Your task to perform on an android device: Go to wifi settings Image 0: 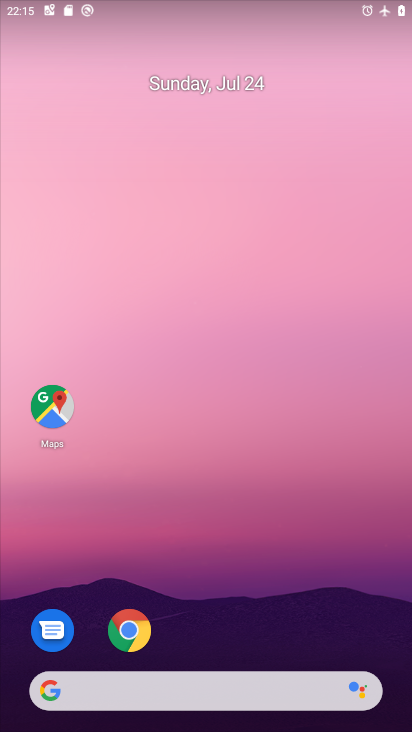
Step 0: drag from (283, 641) to (318, 131)
Your task to perform on an android device: Go to wifi settings Image 1: 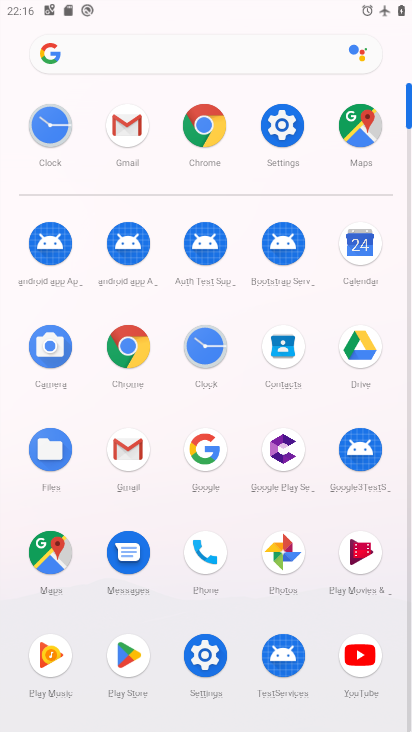
Step 1: click (291, 130)
Your task to perform on an android device: Go to wifi settings Image 2: 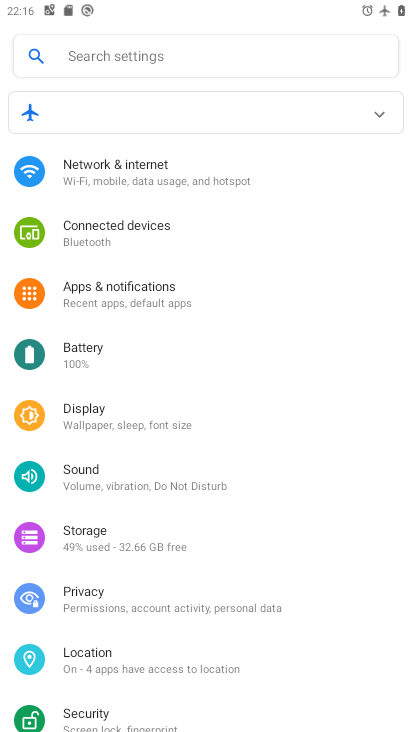
Step 2: click (94, 163)
Your task to perform on an android device: Go to wifi settings Image 3: 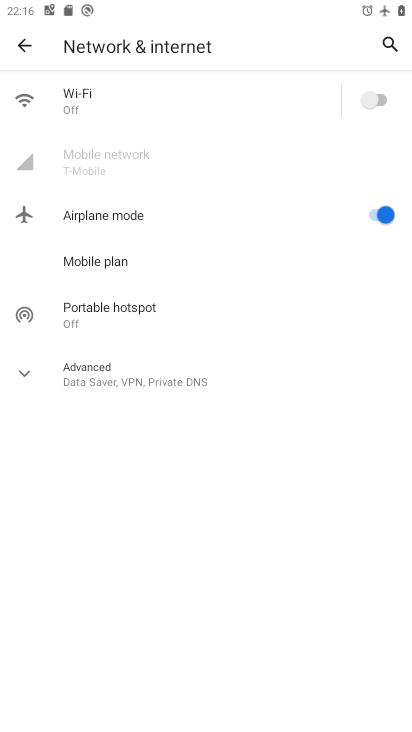
Step 3: click (75, 96)
Your task to perform on an android device: Go to wifi settings Image 4: 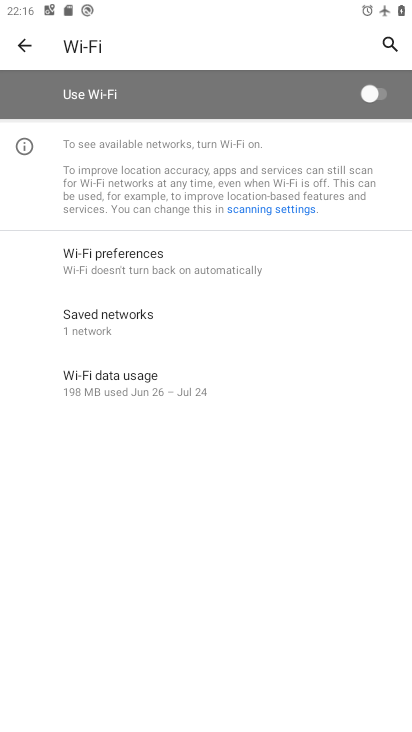
Step 4: task complete